Your task to perform on an android device: Search for the best selling vase on Crate & Barrel Image 0: 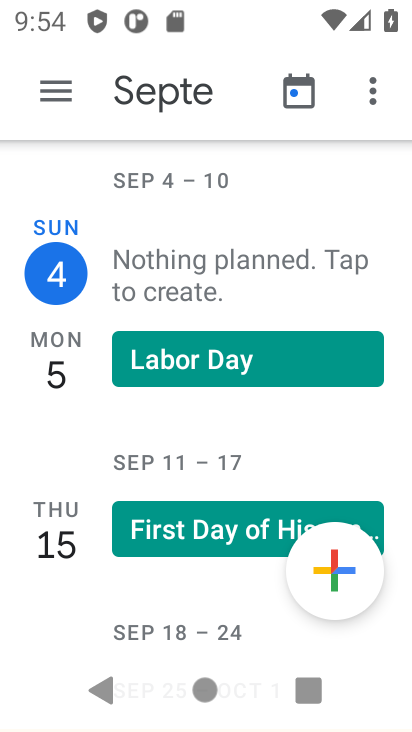
Step 0: press home button
Your task to perform on an android device: Search for the best selling vase on Crate & Barrel Image 1: 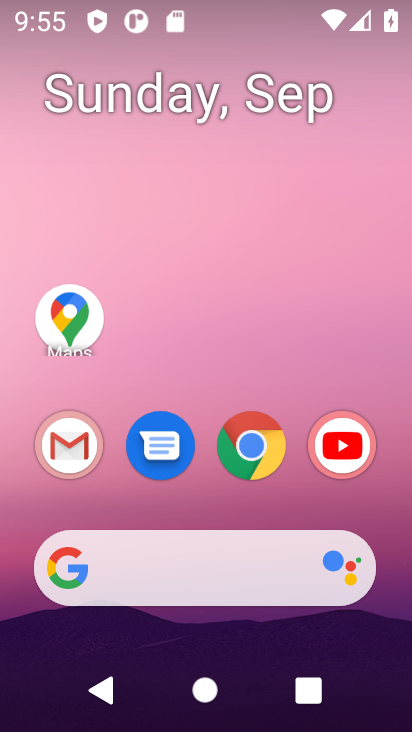
Step 1: drag from (174, 538) to (111, 148)
Your task to perform on an android device: Search for the best selling vase on Crate & Barrel Image 2: 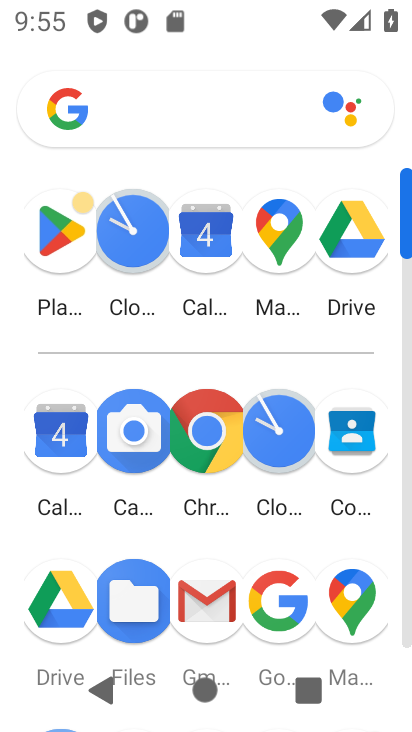
Step 2: click (180, 437)
Your task to perform on an android device: Search for the best selling vase on Crate & Barrel Image 3: 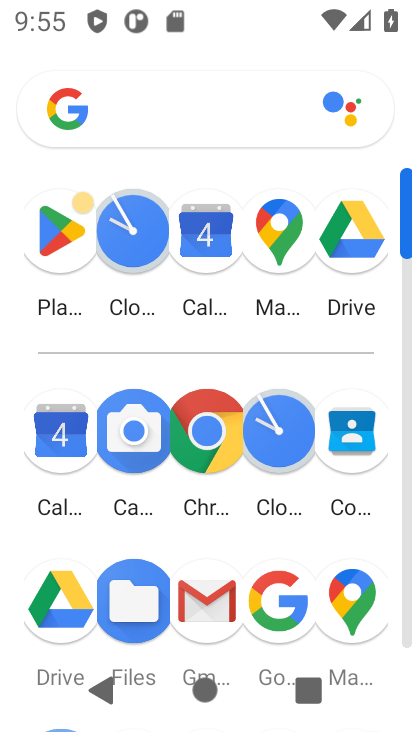
Step 3: click (216, 467)
Your task to perform on an android device: Search for the best selling vase on Crate & Barrel Image 4: 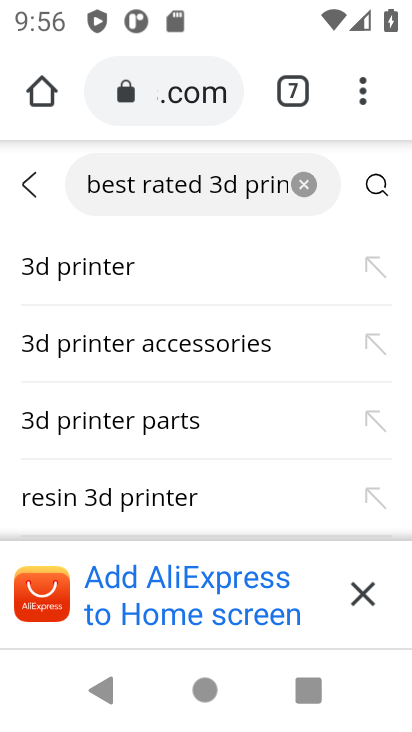
Step 4: click (164, 97)
Your task to perform on an android device: Search for the best selling vase on Crate & Barrel Image 5: 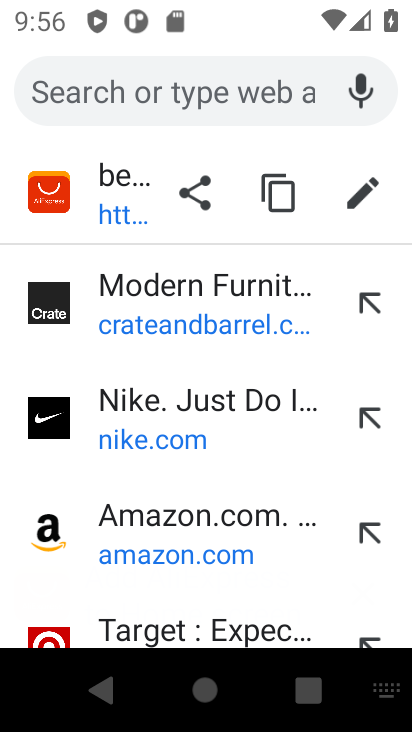
Step 5: type " Crate & Barrel"
Your task to perform on an android device: Search for the best selling vase on Crate & Barrel Image 6: 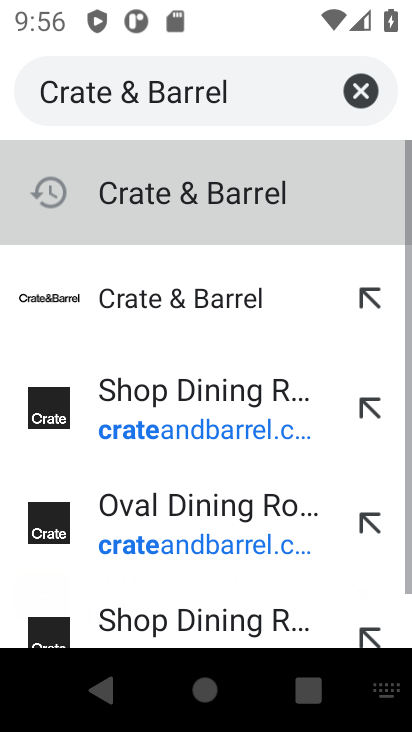
Step 6: press enter
Your task to perform on an android device: Search for the best selling vase on Crate & Barrel Image 7: 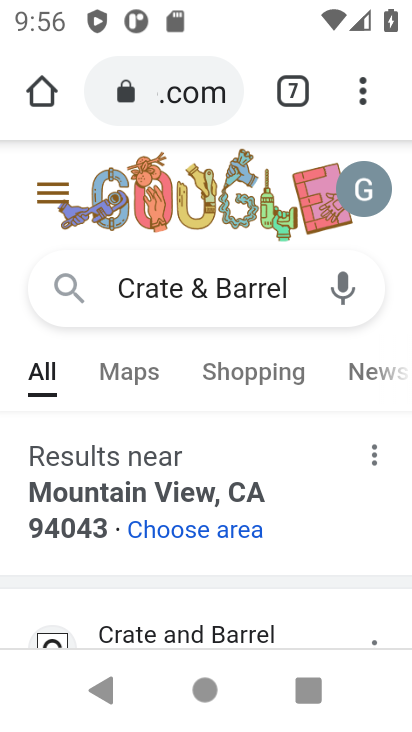
Step 7: drag from (184, 100) to (176, 53)
Your task to perform on an android device: Search for the best selling vase on Crate & Barrel Image 8: 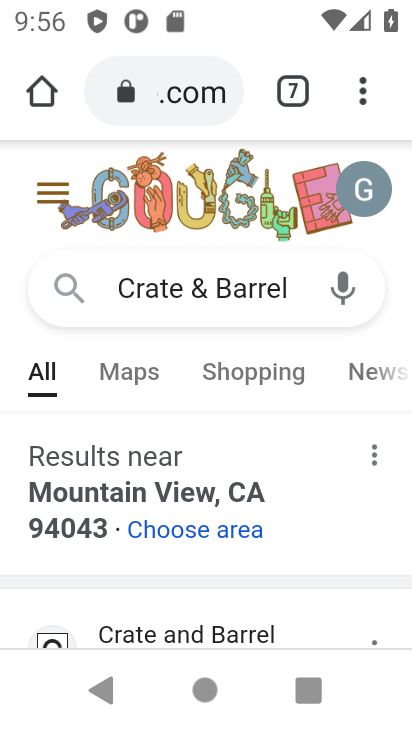
Step 8: drag from (154, 540) to (261, 237)
Your task to perform on an android device: Search for the best selling vase on Crate & Barrel Image 9: 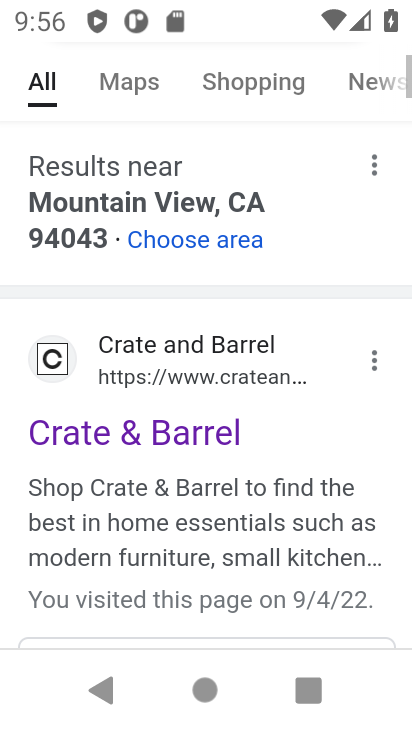
Step 9: click (137, 418)
Your task to perform on an android device: Search for the best selling vase on Crate & Barrel Image 10: 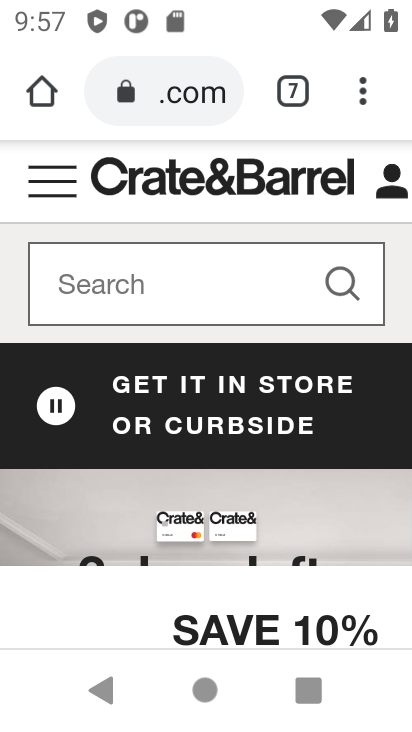
Step 10: click (112, 248)
Your task to perform on an android device: Search for the best selling vase on Crate & Barrel Image 11: 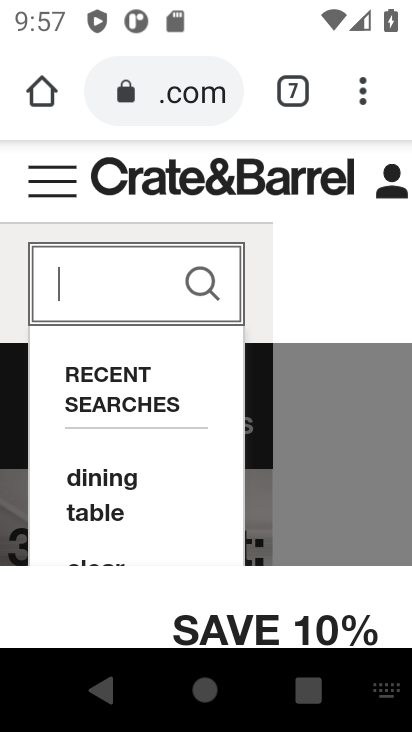
Step 11: press enter
Your task to perform on an android device: Search for the best selling vase on Crate & Barrel Image 12: 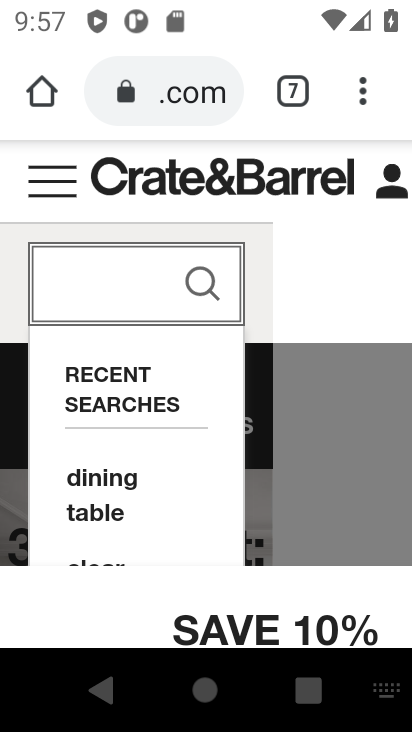
Step 12: type " best selling vase "
Your task to perform on an android device: Search for the best selling vase on Crate & Barrel Image 13: 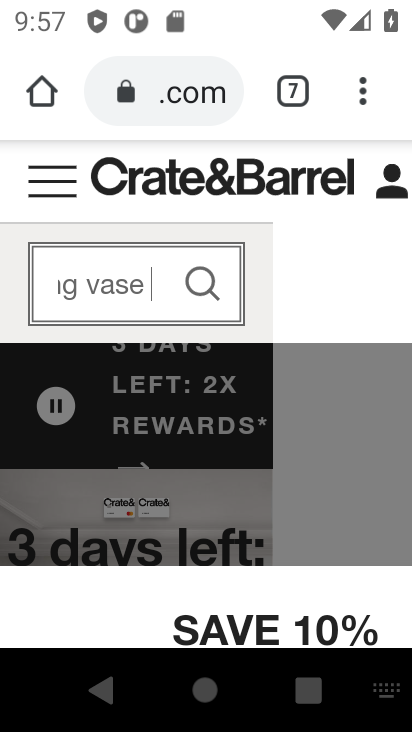
Step 13: press enter
Your task to perform on an android device: Search for the best selling vase on Crate & Barrel Image 14: 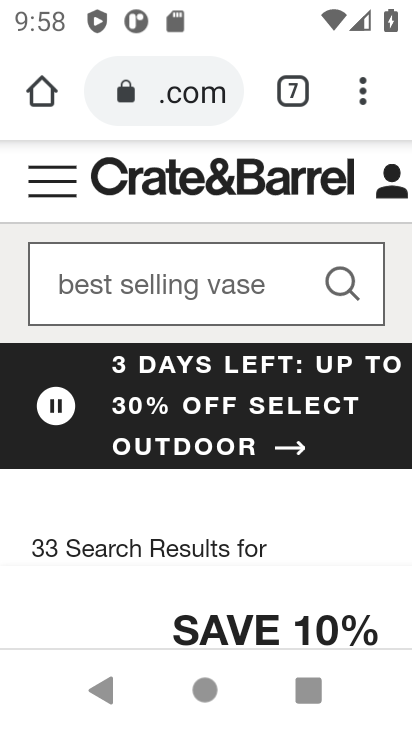
Step 14: task complete